Your task to perform on an android device: toggle wifi Image 0: 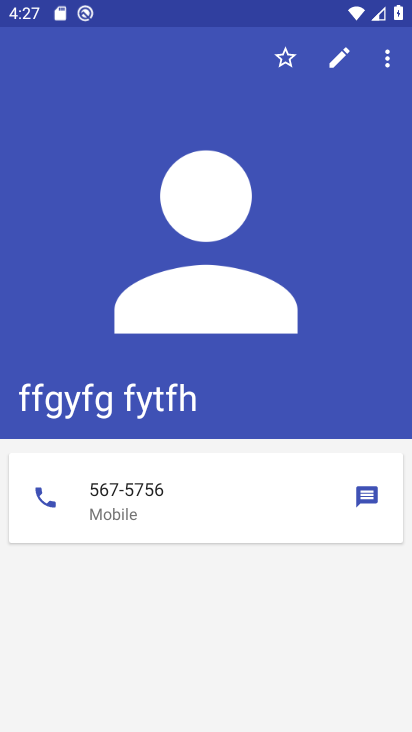
Step 0: press home button
Your task to perform on an android device: toggle wifi Image 1: 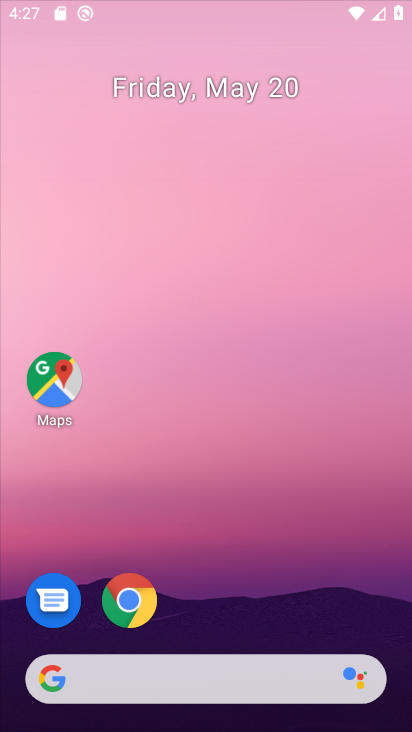
Step 1: click (192, 55)
Your task to perform on an android device: toggle wifi Image 2: 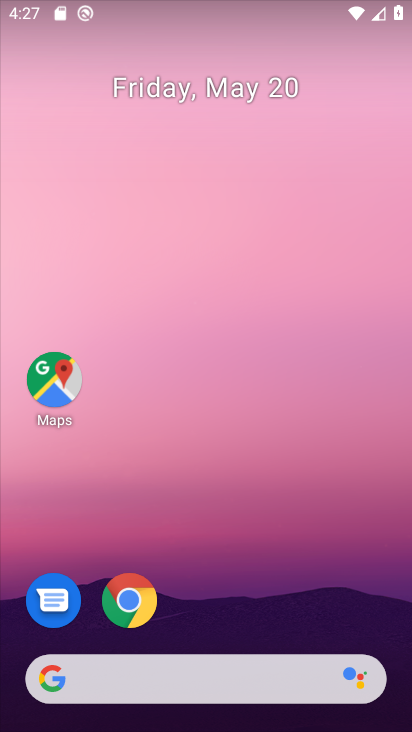
Step 2: click (229, 67)
Your task to perform on an android device: toggle wifi Image 3: 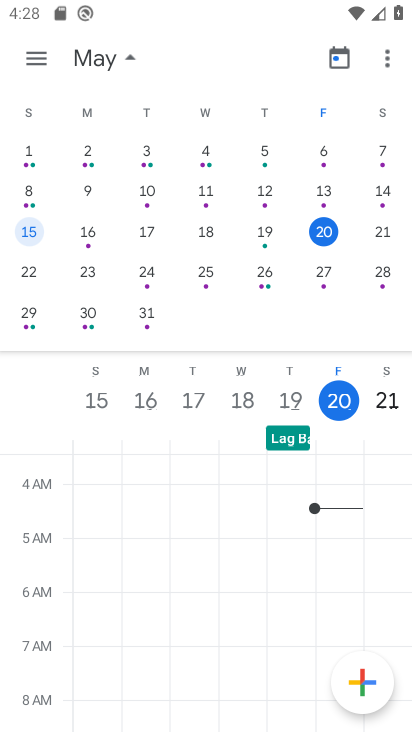
Step 3: press home button
Your task to perform on an android device: toggle wifi Image 4: 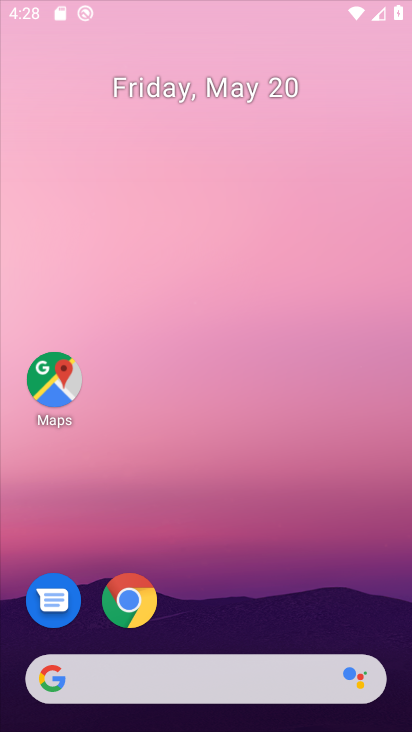
Step 4: drag from (313, 543) to (193, 24)
Your task to perform on an android device: toggle wifi Image 5: 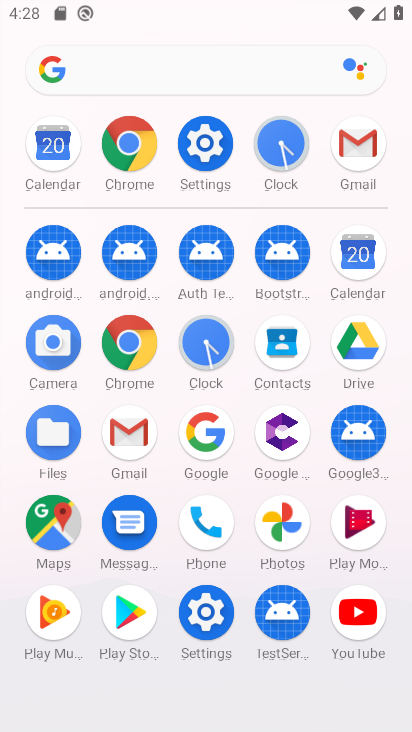
Step 5: click (210, 149)
Your task to perform on an android device: toggle wifi Image 6: 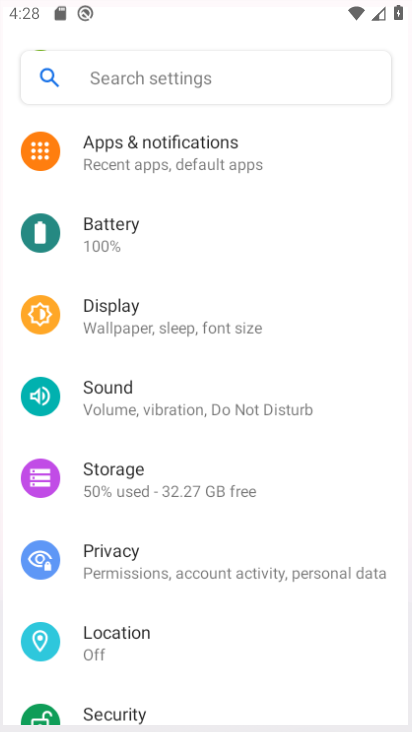
Step 6: drag from (245, 316) to (200, 683)
Your task to perform on an android device: toggle wifi Image 7: 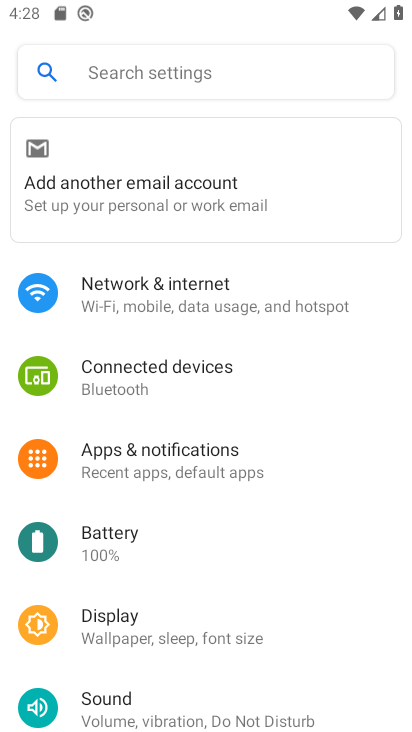
Step 7: click (238, 299)
Your task to perform on an android device: toggle wifi Image 8: 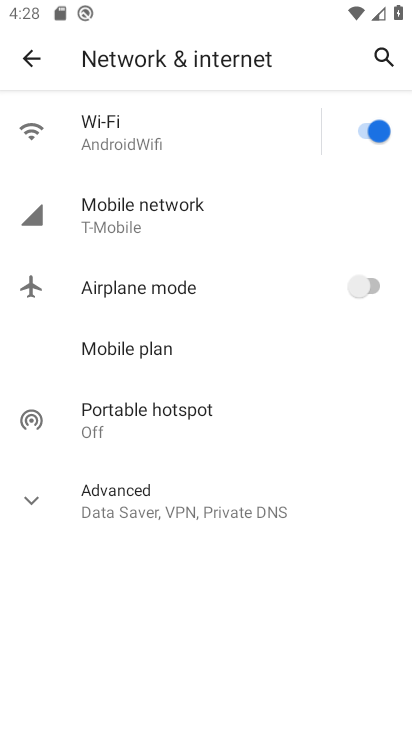
Step 8: click (188, 133)
Your task to perform on an android device: toggle wifi Image 9: 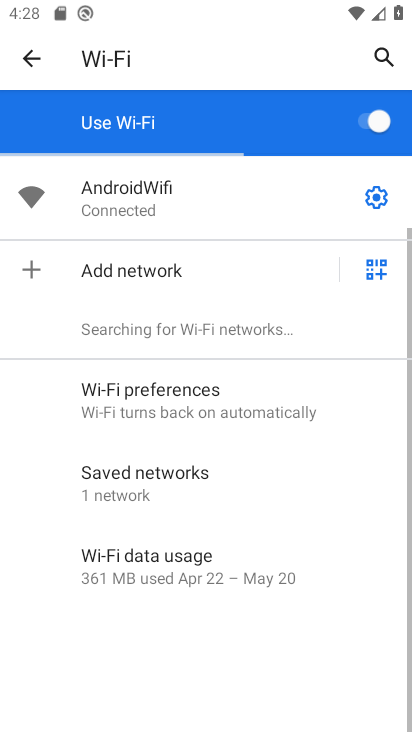
Step 9: click (385, 102)
Your task to perform on an android device: toggle wifi Image 10: 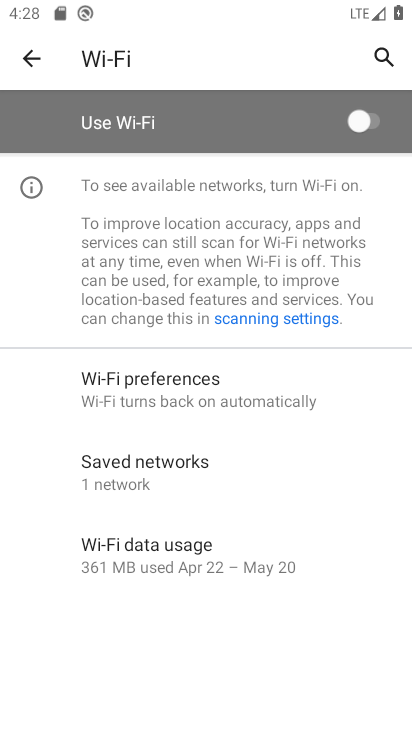
Step 10: task complete